Your task to perform on an android device: Go to eBay Image 0: 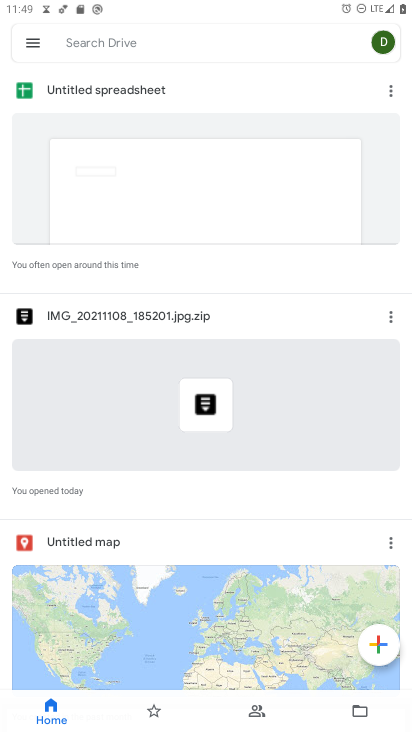
Step 0: press back button
Your task to perform on an android device: Go to eBay Image 1: 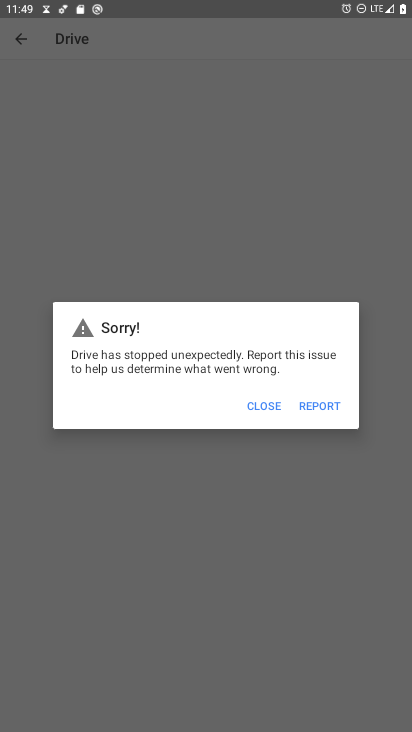
Step 1: press home button
Your task to perform on an android device: Go to eBay Image 2: 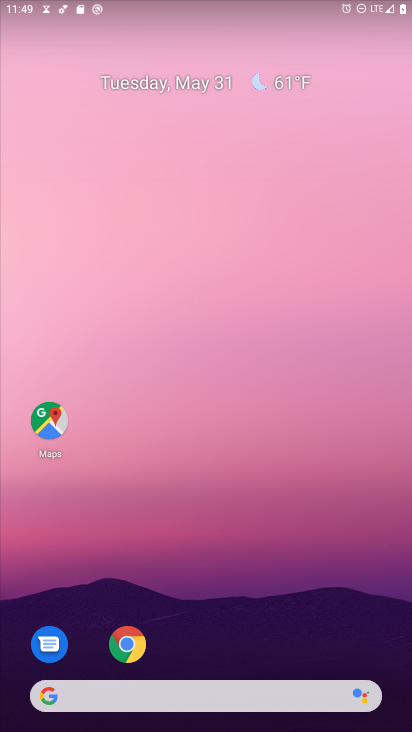
Step 2: click (135, 641)
Your task to perform on an android device: Go to eBay Image 3: 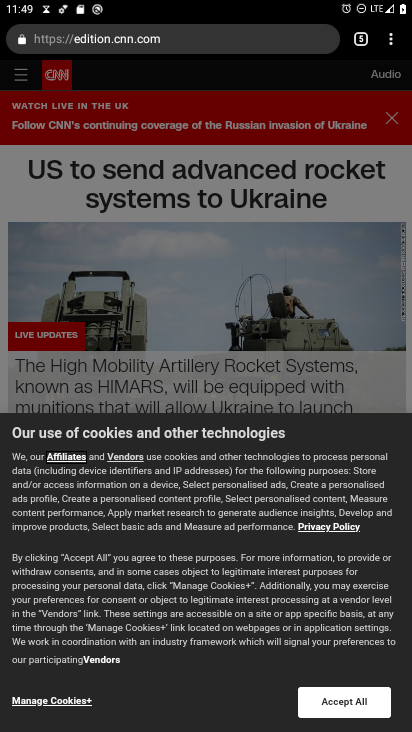
Step 3: click (357, 38)
Your task to perform on an android device: Go to eBay Image 4: 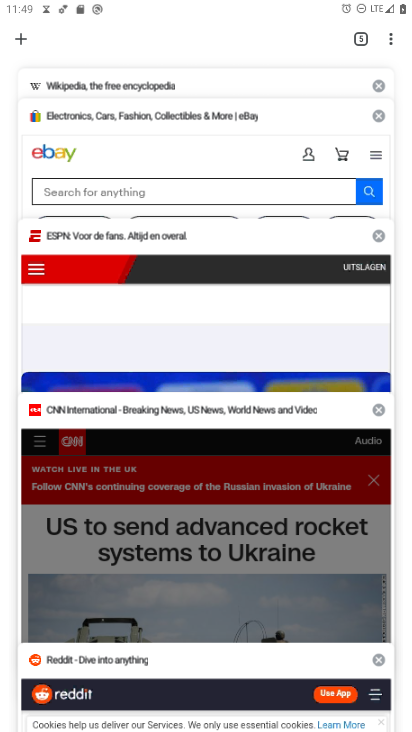
Step 4: click (93, 145)
Your task to perform on an android device: Go to eBay Image 5: 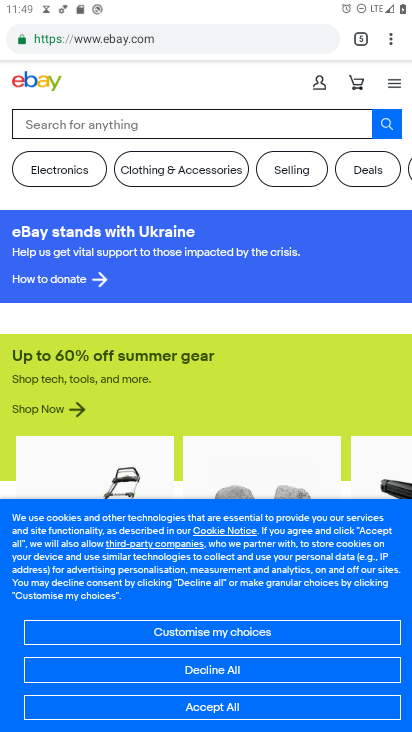
Step 5: task complete